Your task to perform on an android device: Open CNN.com Image 0: 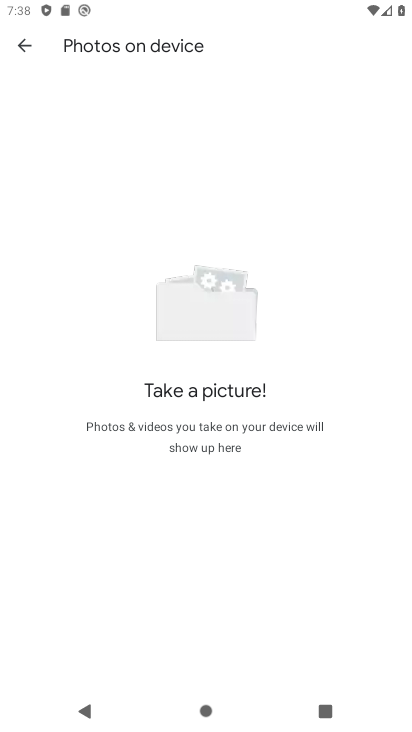
Step 0: press home button
Your task to perform on an android device: Open CNN.com Image 1: 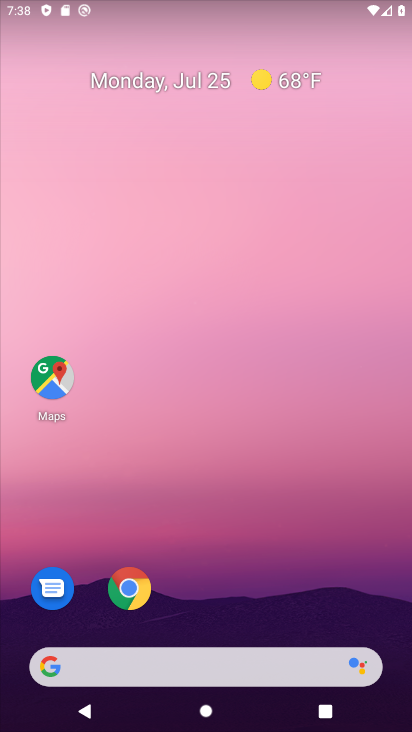
Step 1: drag from (348, 568) to (359, 73)
Your task to perform on an android device: Open CNN.com Image 2: 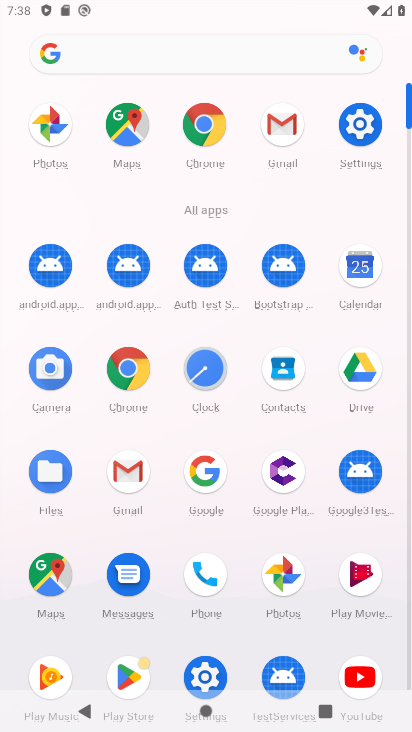
Step 2: click (208, 125)
Your task to perform on an android device: Open CNN.com Image 3: 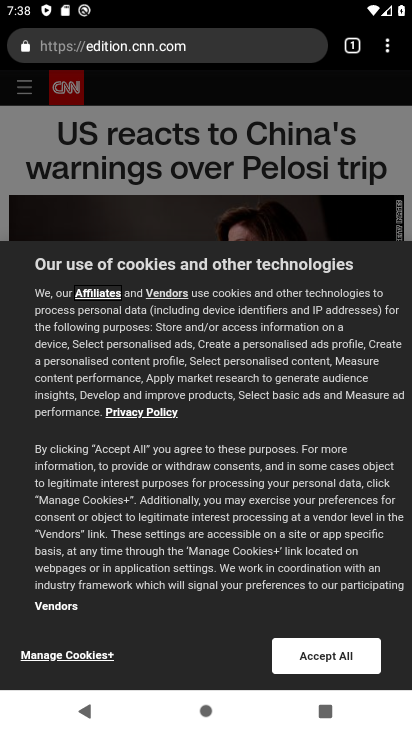
Step 3: task complete